Your task to perform on an android device: Open Google Chrome and click the shortcut for Amazon.com Image 0: 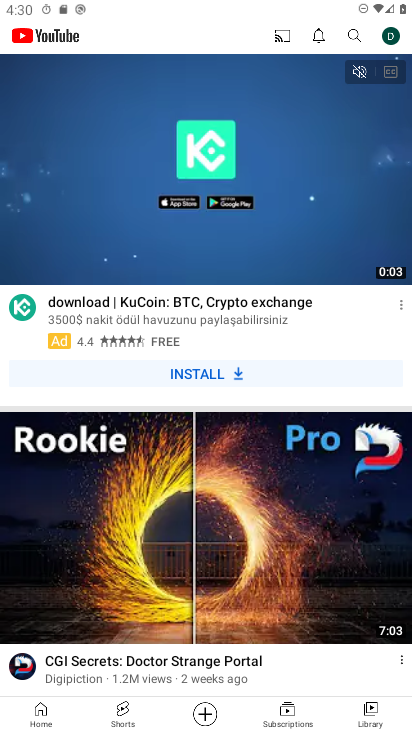
Step 0: press home button
Your task to perform on an android device: Open Google Chrome and click the shortcut for Amazon.com Image 1: 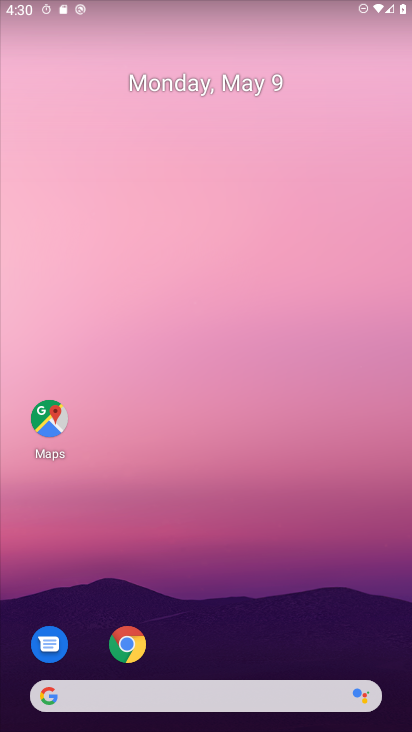
Step 1: click (125, 657)
Your task to perform on an android device: Open Google Chrome and click the shortcut for Amazon.com Image 2: 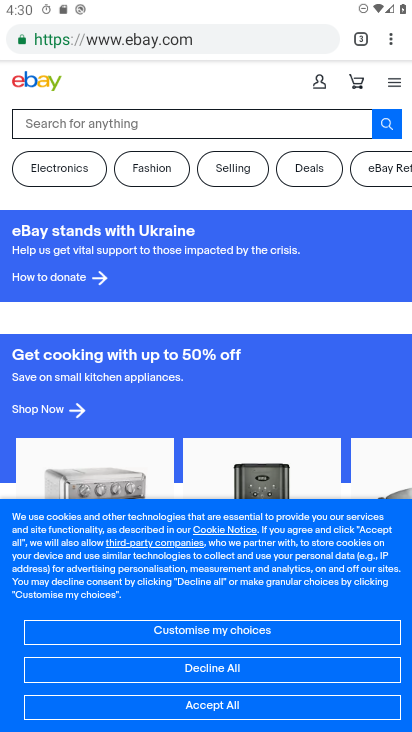
Step 2: click (363, 36)
Your task to perform on an android device: Open Google Chrome and click the shortcut for Amazon.com Image 3: 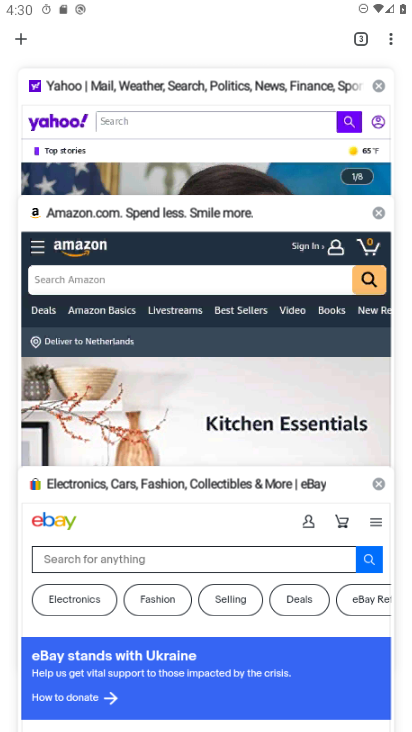
Step 3: click (20, 45)
Your task to perform on an android device: Open Google Chrome and click the shortcut for Amazon.com Image 4: 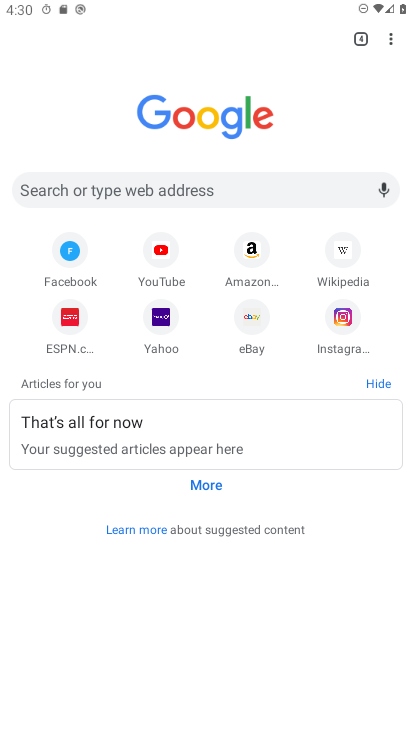
Step 4: click (242, 259)
Your task to perform on an android device: Open Google Chrome and click the shortcut for Amazon.com Image 5: 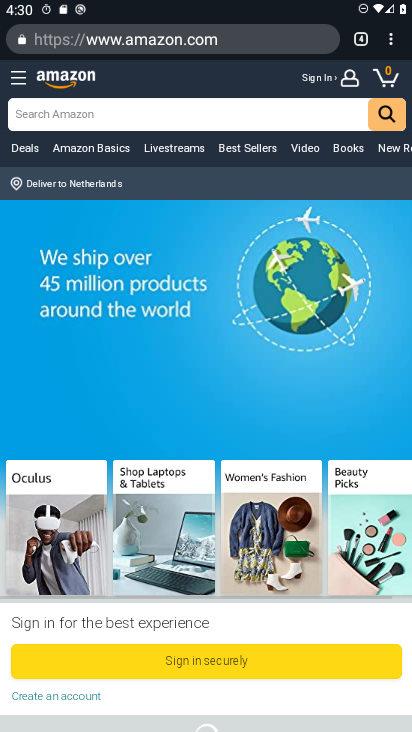
Step 5: task complete